Your task to perform on an android device: Open my contact list Image 0: 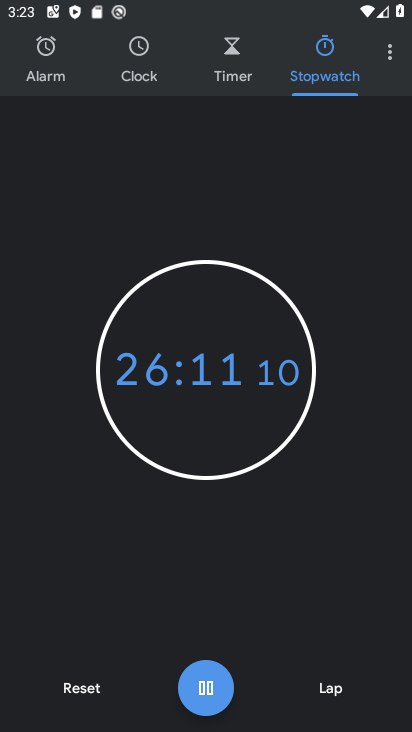
Step 0: press home button
Your task to perform on an android device: Open my contact list Image 1: 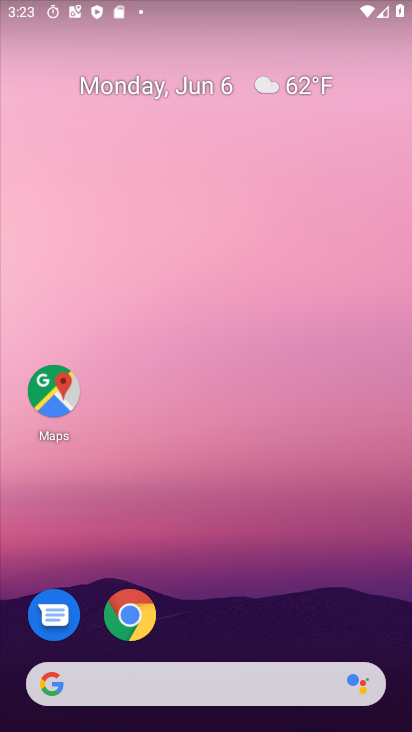
Step 1: drag from (274, 683) to (349, 166)
Your task to perform on an android device: Open my contact list Image 2: 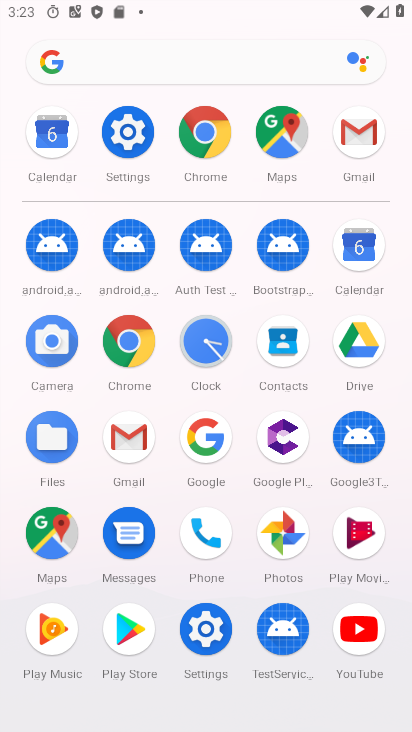
Step 2: click (271, 344)
Your task to perform on an android device: Open my contact list Image 3: 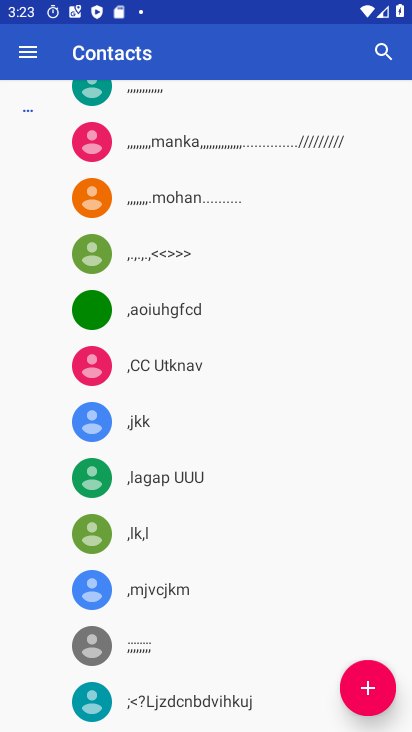
Step 3: task complete